Your task to perform on an android device: open the mobile data screen to see how much data has been used Image 0: 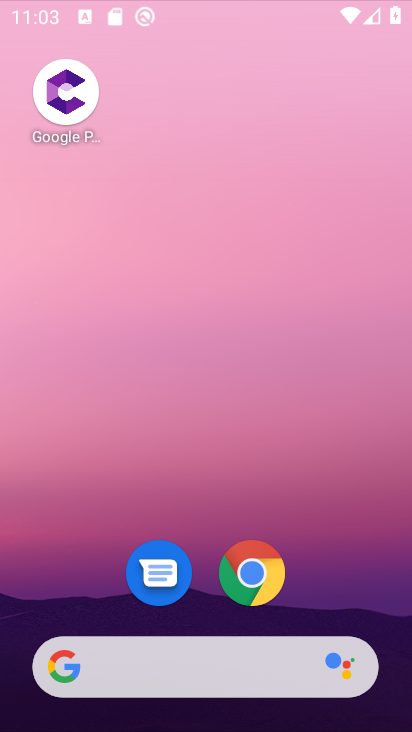
Step 0: press home button
Your task to perform on an android device: open the mobile data screen to see how much data has been used Image 1: 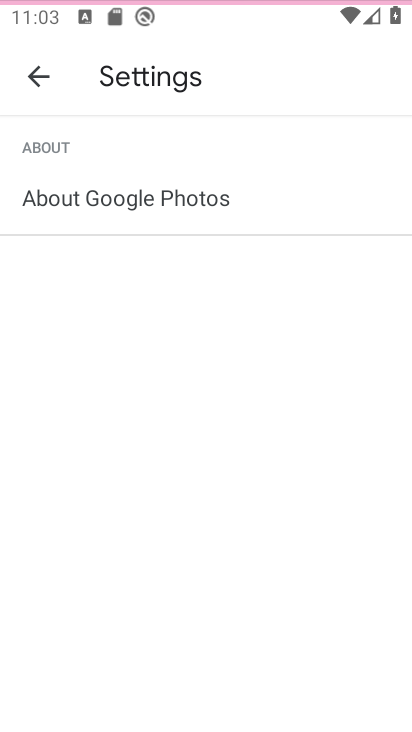
Step 1: drag from (179, 654) to (235, 2)
Your task to perform on an android device: open the mobile data screen to see how much data has been used Image 2: 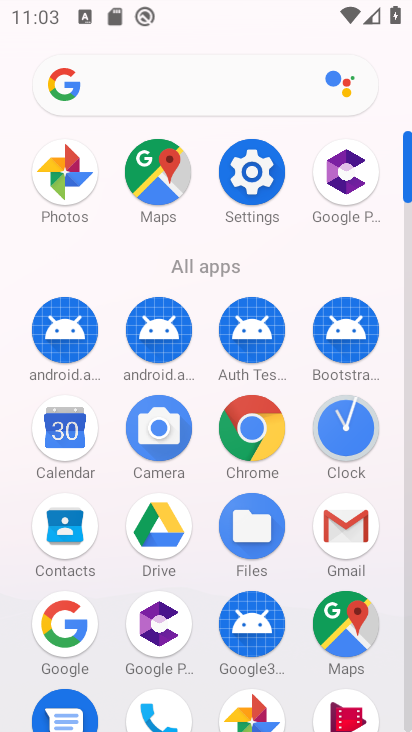
Step 2: drag from (215, 559) to (292, 215)
Your task to perform on an android device: open the mobile data screen to see how much data has been used Image 3: 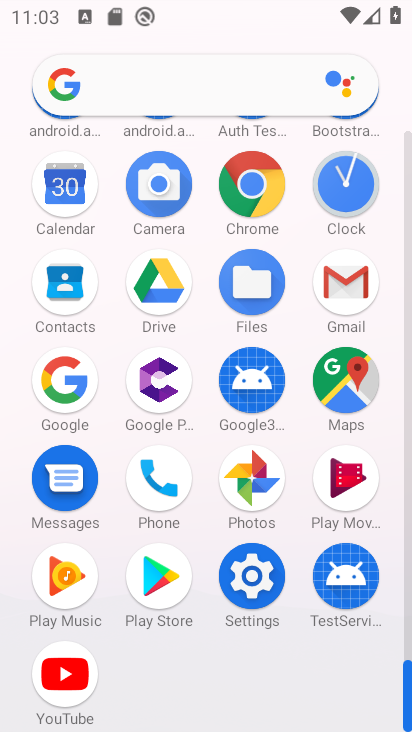
Step 3: click (261, 581)
Your task to perform on an android device: open the mobile data screen to see how much data has been used Image 4: 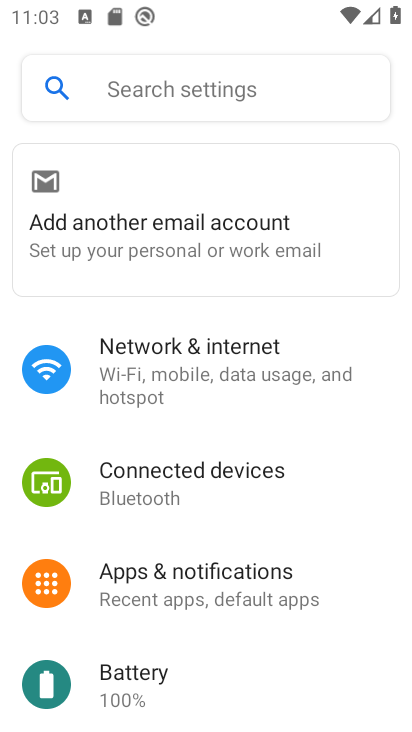
Step 4: click (253, 369)
Your task to perform on an android device: open the mobile data screen to see how much data has been used Image 5: 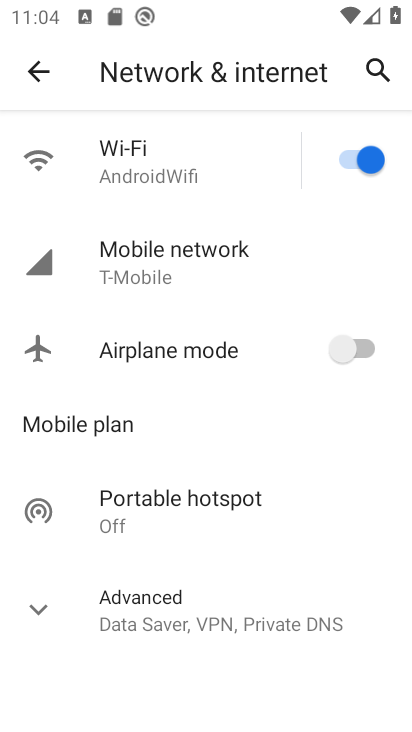
Step 5: click (216, 267)
Your task to perform on an android device: open the mobile data screen to see how much data has been used Image 6: 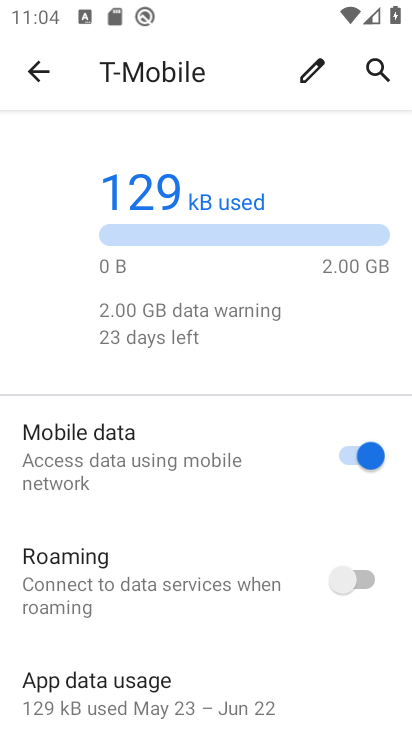
Step 6: drag from (105, 574) to (188, 238)
Your task to perform on an android device: open the mobile data screen to see how much data has been used Image 7: 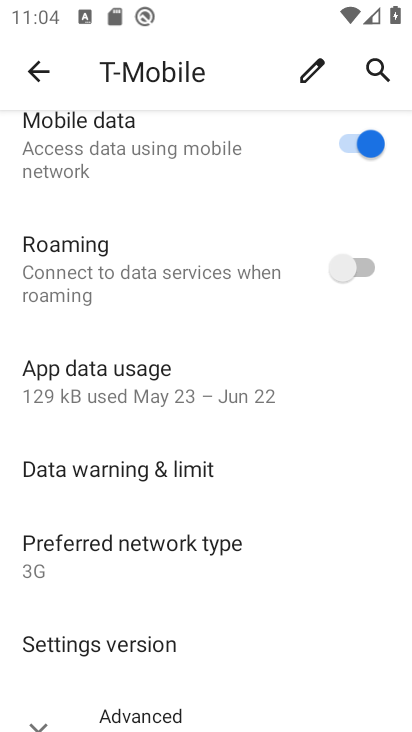
Step 7: click (200, 390)
Your task to perform on an android device: open the mobile data screen to see how much data has been used Image 8: 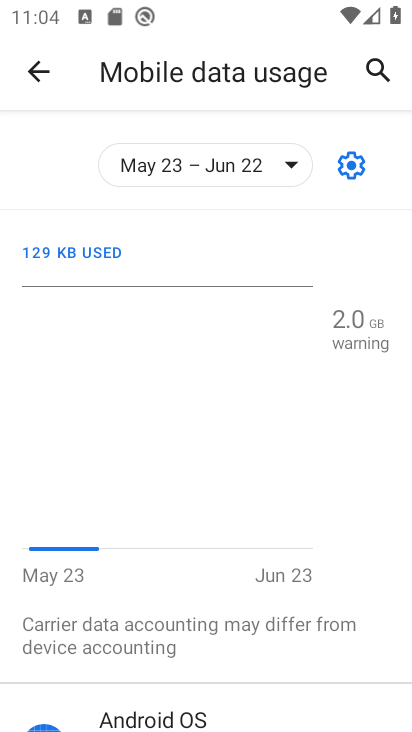
Step 8: task complete